Your task to perform on an android device: toggle location history Image 0: 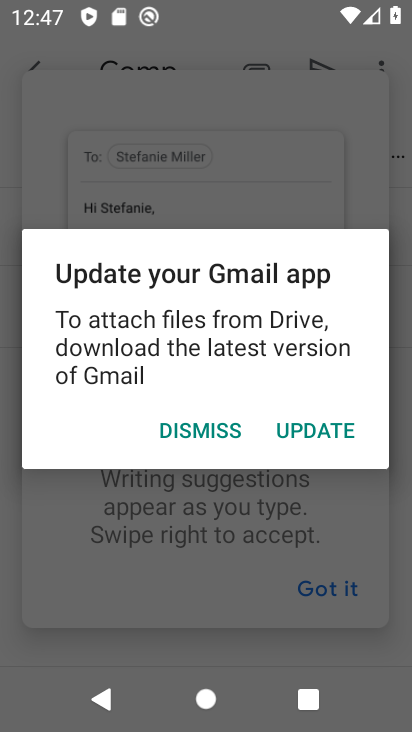
Step 0: press home button
Your task to perform on an android device: toggle location history Image 1: 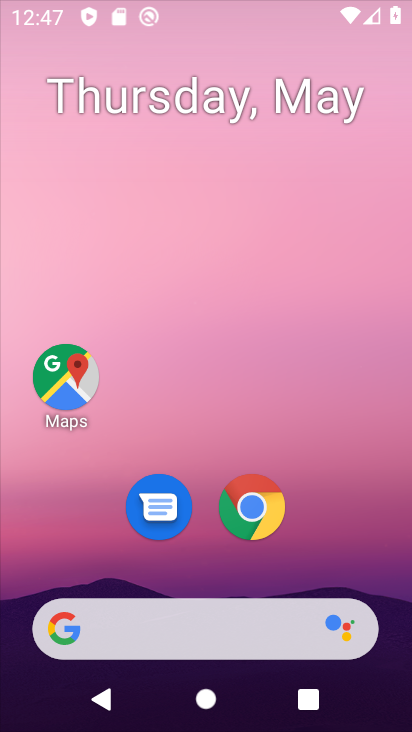
Step 1: drag from (288, 616) to (401, 504)
Your task to perform on an android device: toggle location history Image 2: 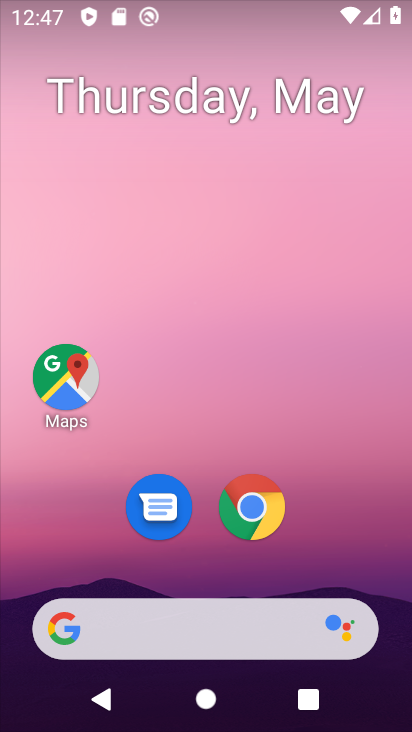
Step 2: drag from (247, 404) to (266, 54)
Your task to perform on an android device: toggle location history Image 3: 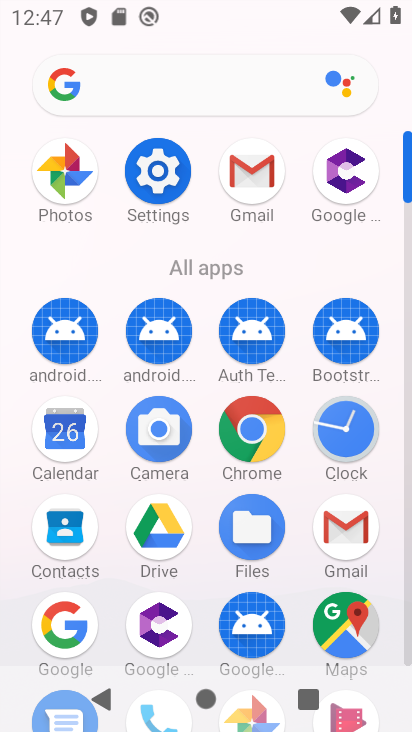
Step 3: click (181, 149)
Your task to perform on an android device: toggle location history Image 4: 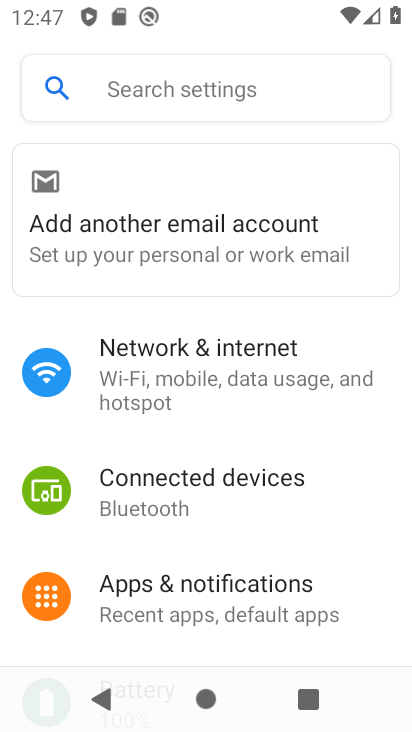
Step 4: drag from (286, 545) to (301, 70)
Your task to perform on an android device: toggle location history Image 5: 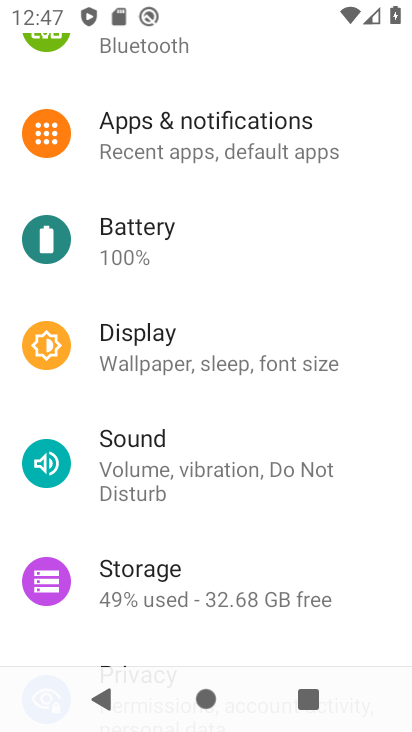
Step 5: drag from (249, 550) to (270, 226)
Your task to perform on an android device: toggle location history Image 6: 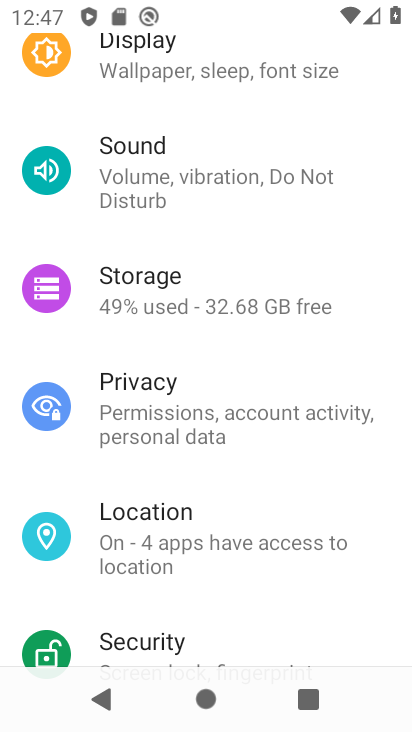
Step 6: click (264, 536)
Your task to perform on an android device: toggle location history Image 7: 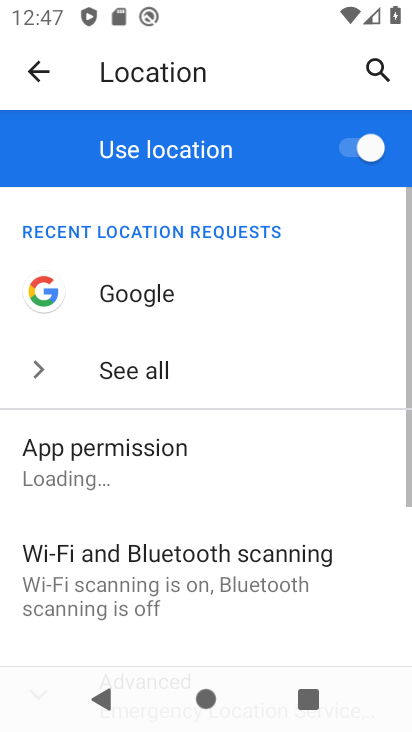
Step 7: drag from (202, 622) to (196, 208)
Your task to perform on an android device: toggle location history Image 8: 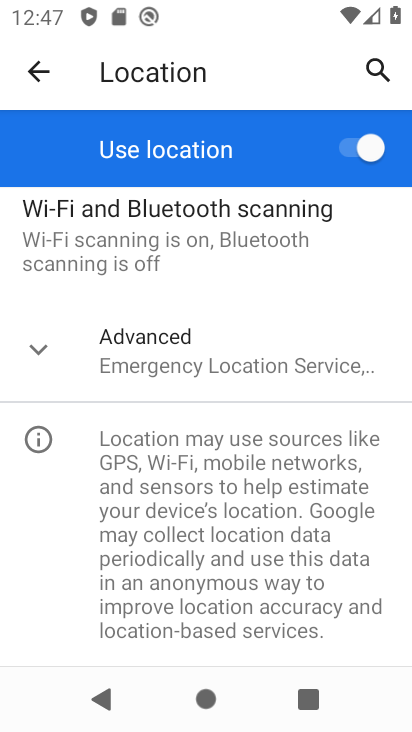
Step 8: drag from (152, 635) to (167, 453)
Your task to perform on an android device: toggle location history Image 9: 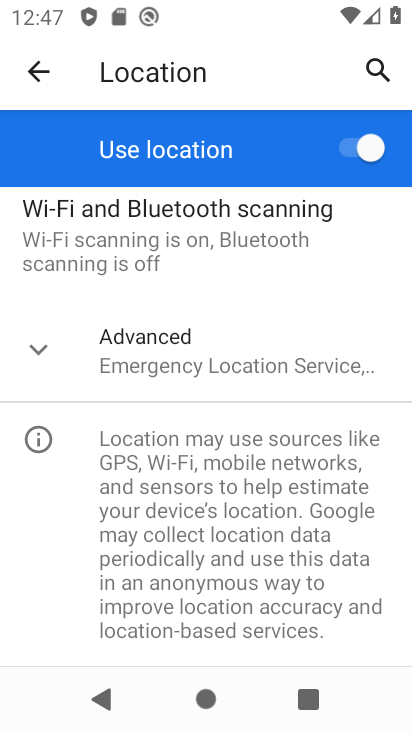
Step 9: click (229, 371)
Your task to perform on an android device: toggle location history Image 10: 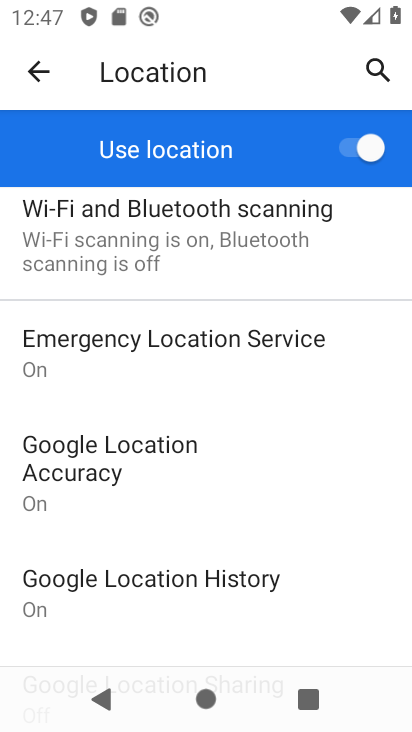
Step 10: drag from (180, 580) to (217, 333)
Your task to perform on an android device: toggle location history Image 11: 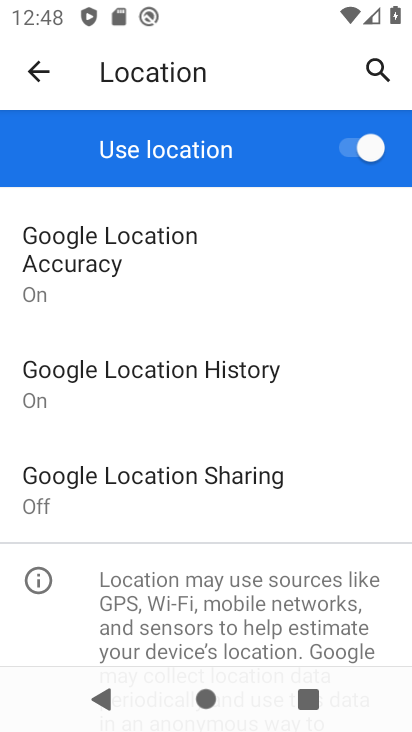
Step 11: press home button
Your task to perform on an android device: toggle location history Image 12: 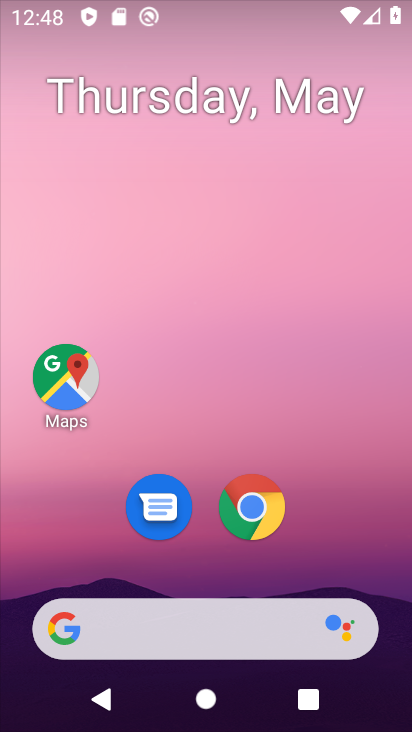
Step 12: drag from (346, 641) to (355, 75)
Your task to perform on an android device: toggle location history Image 13: 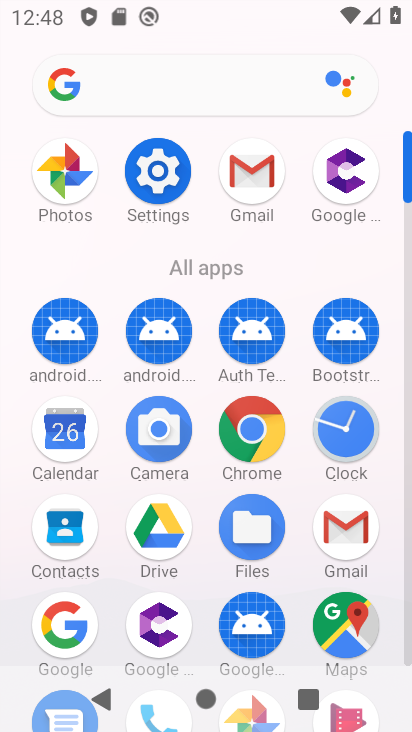
Step 13: click (175, 160)
Your task to perform on an android device: toggle location history Image 14: 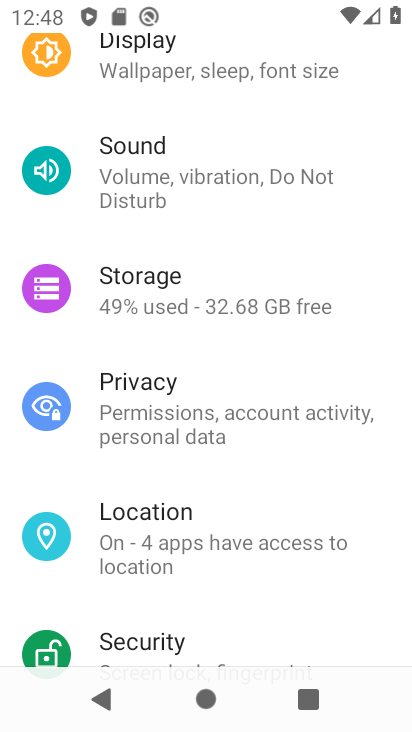
Step 14: click (220, 528)
Your task to perform on an android device: toggle location history Image 15: 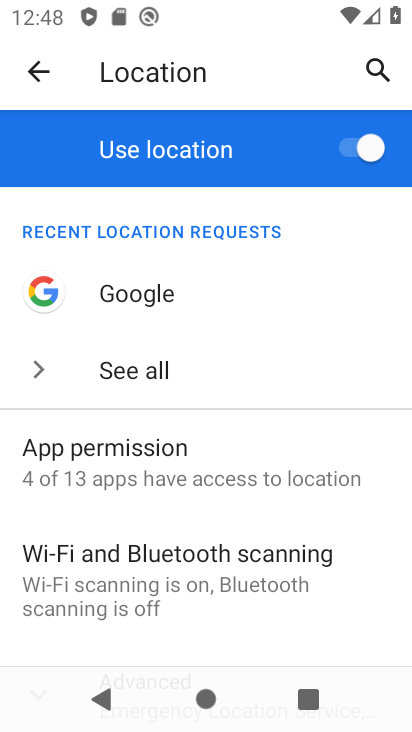
Step 15: drag from (340, 610) to (277, 81)
Your task to perform on an android device: toggle location history Image 16: 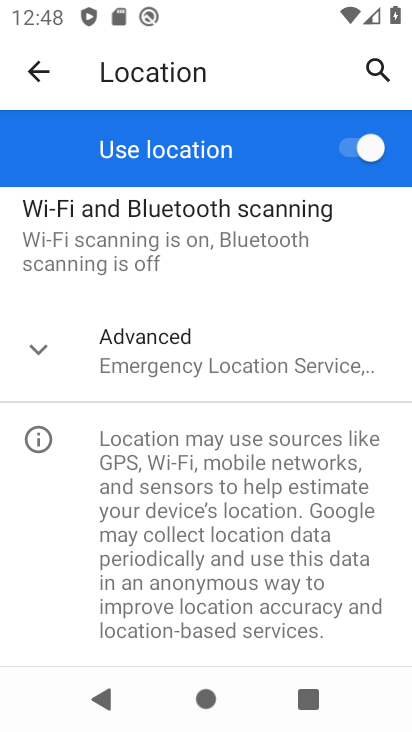
Step 16: click (230, 357)
Your task to perform on an android device: toggle location history Image 17: 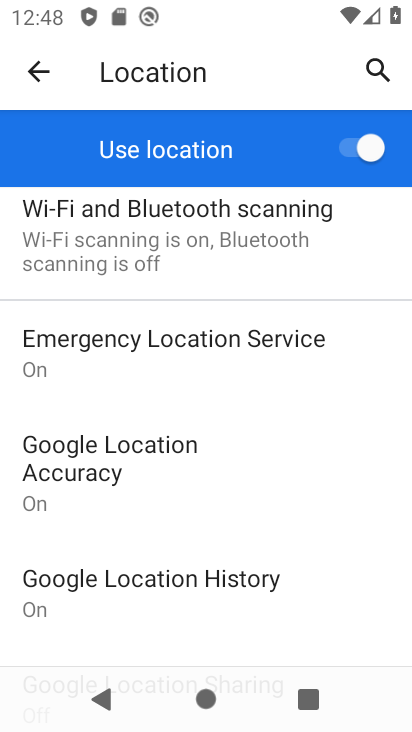
Step 17: click (193, 591)
Your task to perform on an android device: toggle location history Image 18: 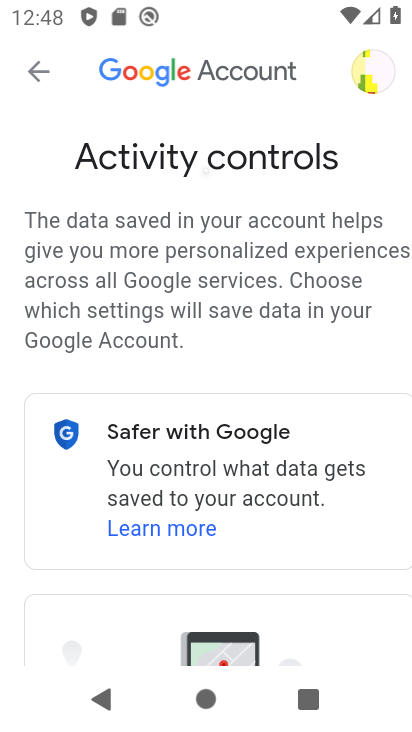
Step 18: drag from (195, 569) to (222, 110)
Your task to perform on an android device: toggle location history Image 19: 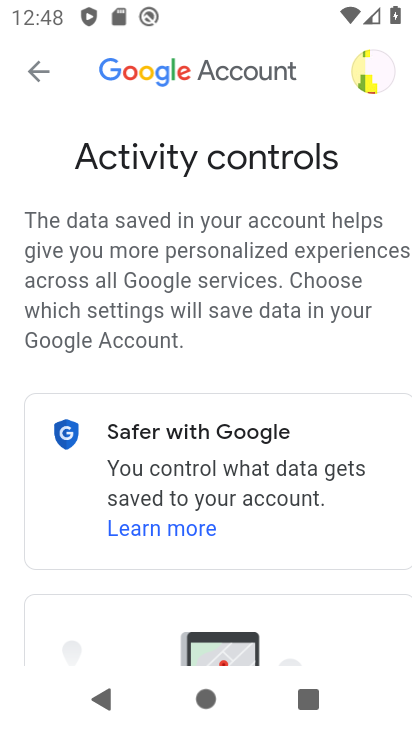
Step 19: drag from (251, 623) to (219, 189)
Your task to perform on an android device: toggle location history Image 20: 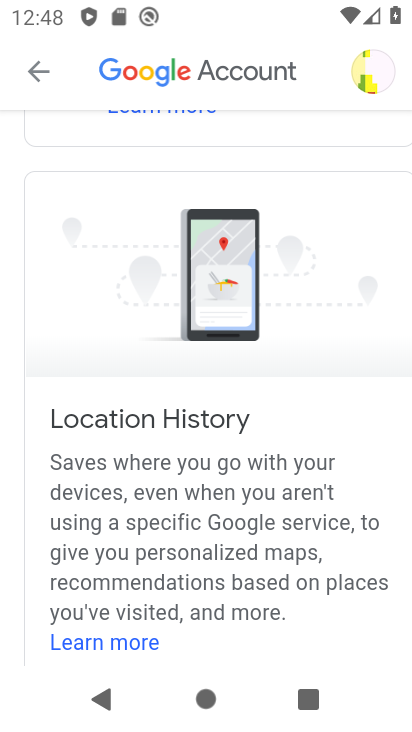
Step 20: drag from (303, 653) to (385, 246)
Your task to perform on an android device: toggle location history Image 21: 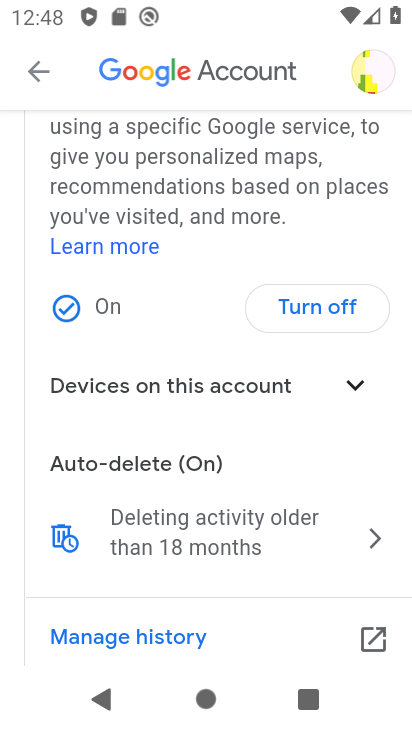
Step 21: click (314, 298)
Your task to perform on an android device: toggle location history Image 22: 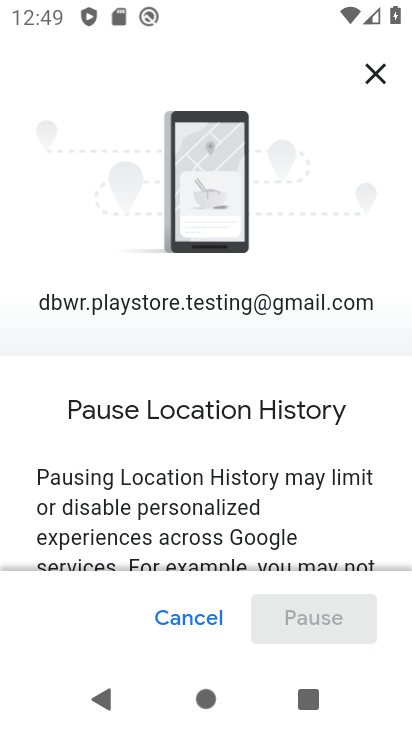
Step 22: drag from (267, 508) to (171, 6)
Your task to perform on an android device: toggle location history Image 23: 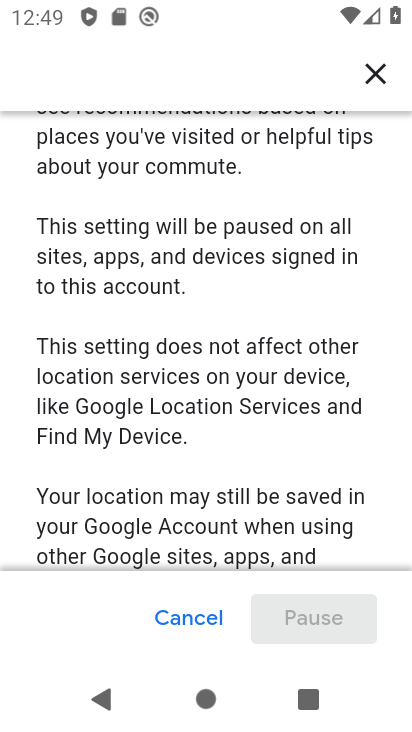
Step 23: drag from (165, 535) to (101, 30)
Your task to perform on an android device: toggle location history Image 24: 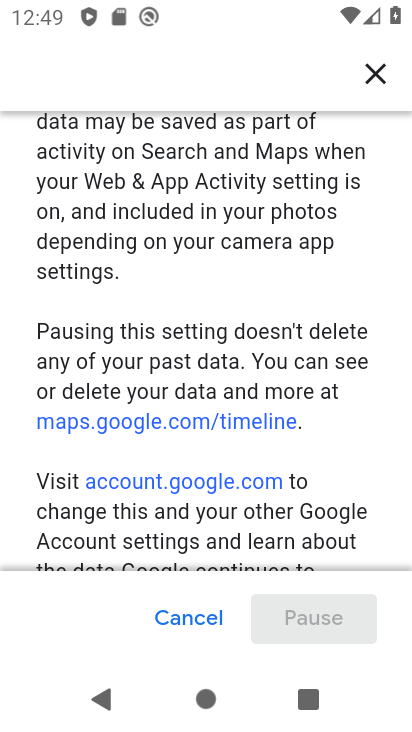
Step 24: drag from (210, 512) to (201, 143)
Your task to perform on an android device: toggle location history Image 25: 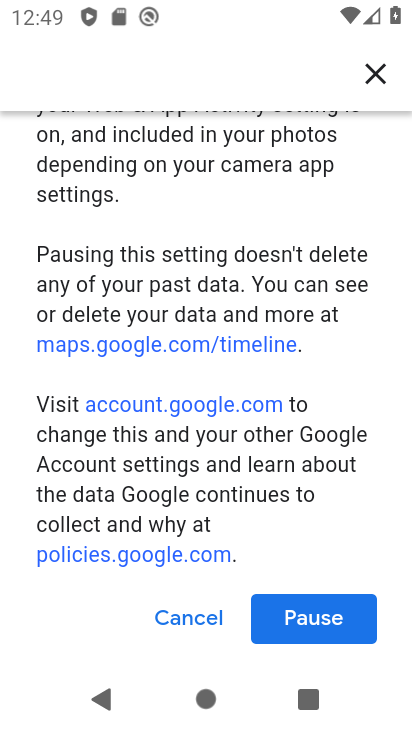
Step 25: click (286, 622)
Your task to perform on an android device: toggle location history Image 26: 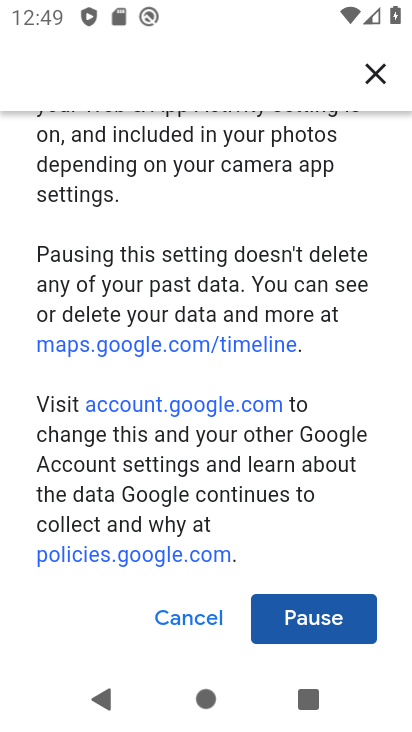
Step 26: click (342, 608)
Your task to perform on an android device: toggle location history Image 27: 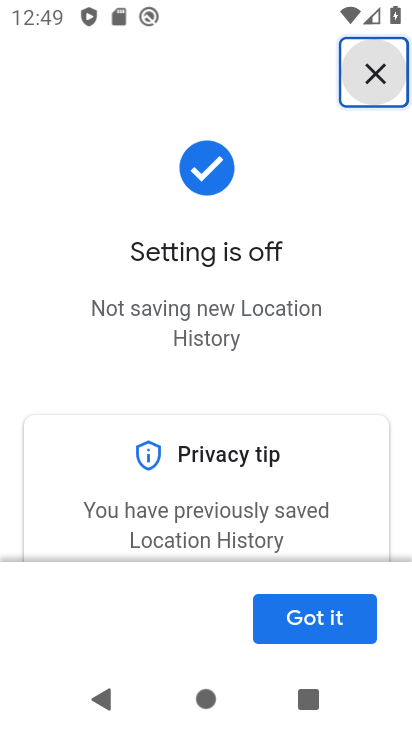
Step 27: task complete